Your task to perform on an android device: turn on bluetooth scan Image 0: 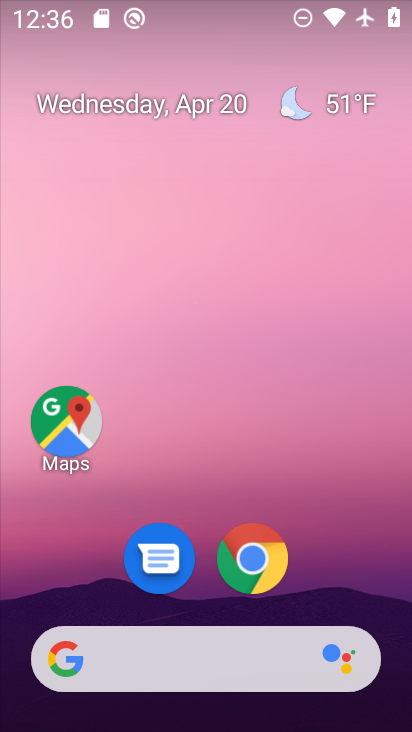
Step 0: drag from (385, 605) to (349, 242)
Your task to perform on an android device: turn on bluetooth scan Image 1: 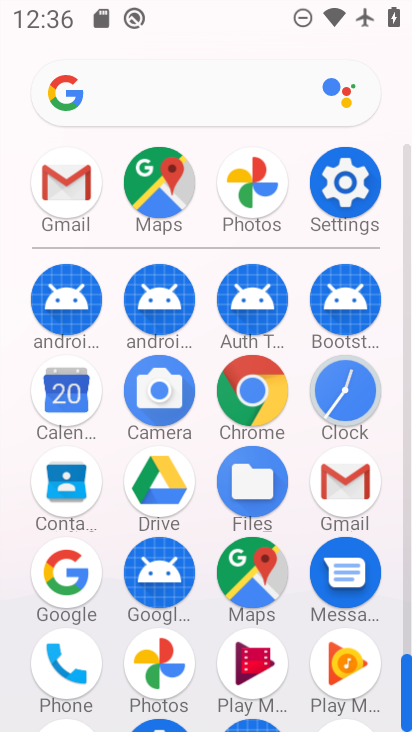
Step 1: drag from (404, 636) to (406, 568)
Your task to perform on an android device: turn on bluetooth scan Image 2: 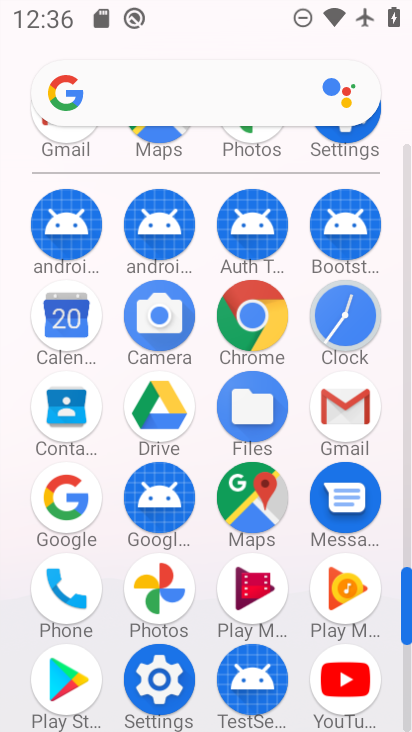
Step 2: click (162, 681)
Your task to perform on an android device: turn on bluetooth scan Image 3: 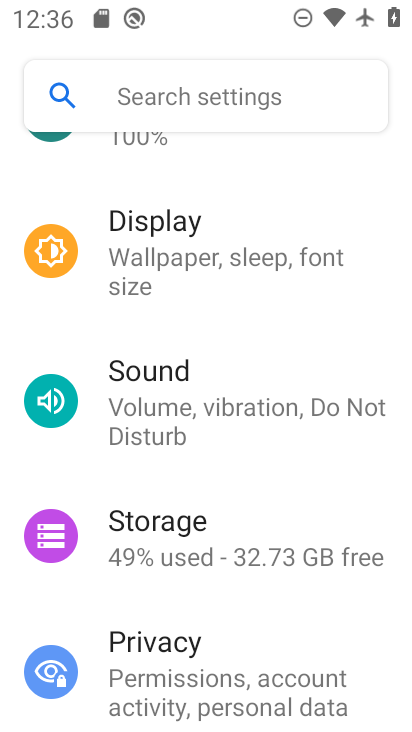
Step 3: drag from (378, 531) to (344, 271)
Your task to perform on an android device: turn on bluetooth scan Image 4: 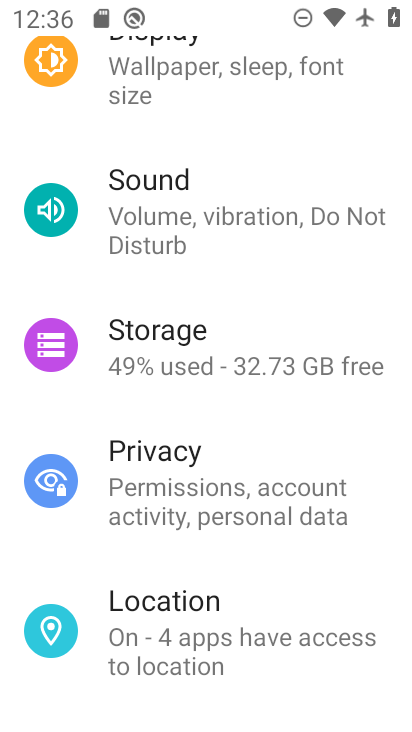
Step 4: drag from (335, 519) to (335, 222)
Your task to perform on an android device: turn on bluetooth scan Image 5: 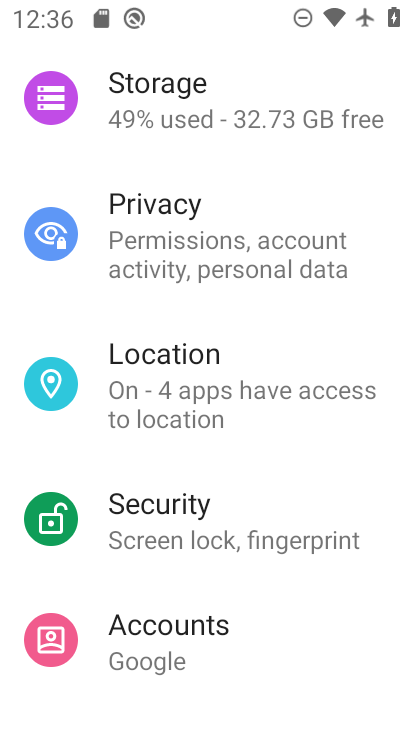
Step 5: click (166, 391)
Your task to perform on an android device: turn on bluetooth scan Image 6: 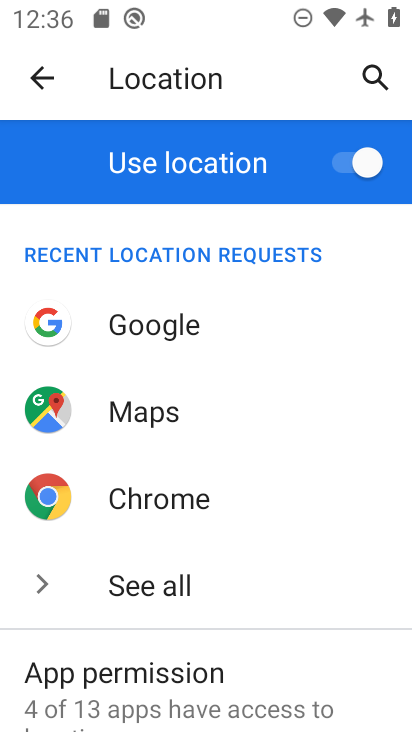
Step 6: drag from (215, 602) to (241, 227)
Your task to perform on an android device: turn on bluetooth scan Image 7: 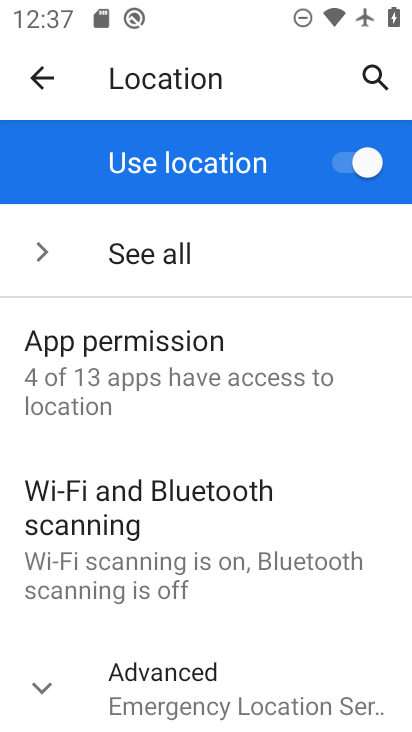
Step 7: click (136, 506)
Your task to perform on an android device: turn on bluetooth scan Image 8: 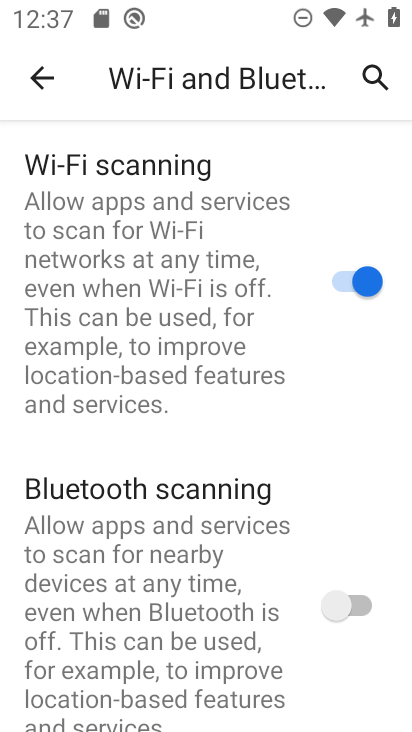
Step 8: click (362, 599)
Your task to perform on an android device: turn on bluetooth scan Image 9: 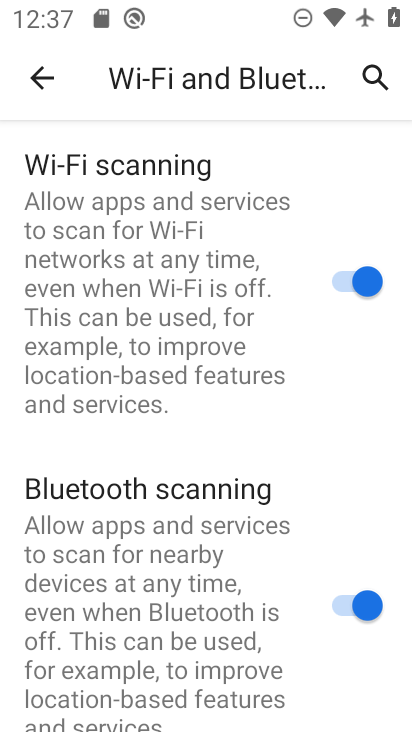
Step 9: task complete